Your task to perform on an android device: Open the stopwatch Image 0: 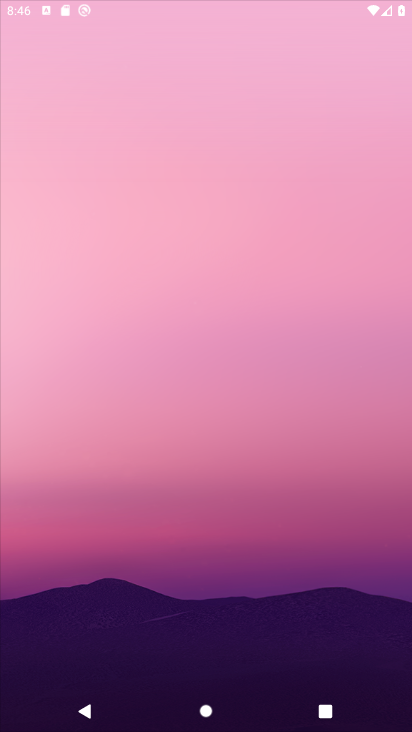
Step 0: click (212, 32)
Your task to perform on an android device: Open the stopwatch Image 1: 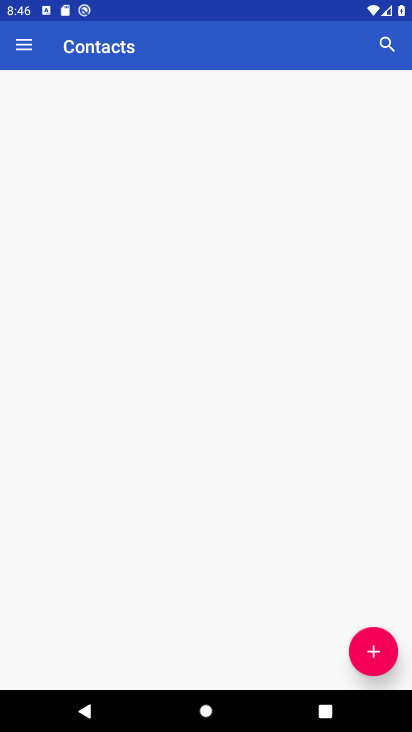
Step 1: press home button
Your task to perform on an android device: Open the stopwatch Image 2: 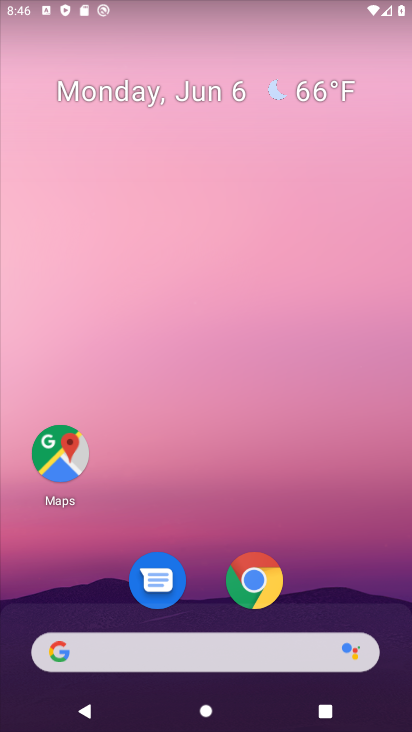
Step 2: drag from (337, 468) to (340, 2)
Your task to perform on an android device: Open the stopwatch Image 3: 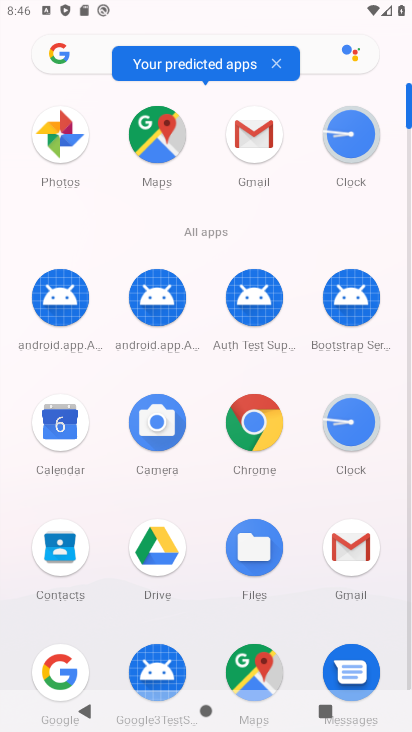
Step 3: click (349, 424)
Your task to perform on an android device: Open the stopwatch Image 4: 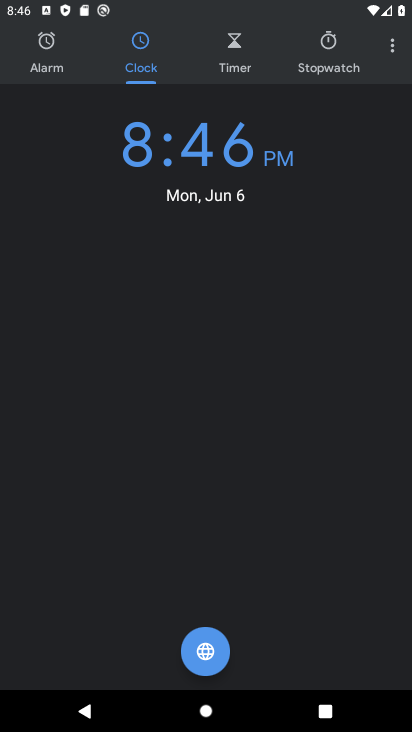
Step 4: click (319, 57)
Your task to perform on an android device: Open the stopwatch Image 5: 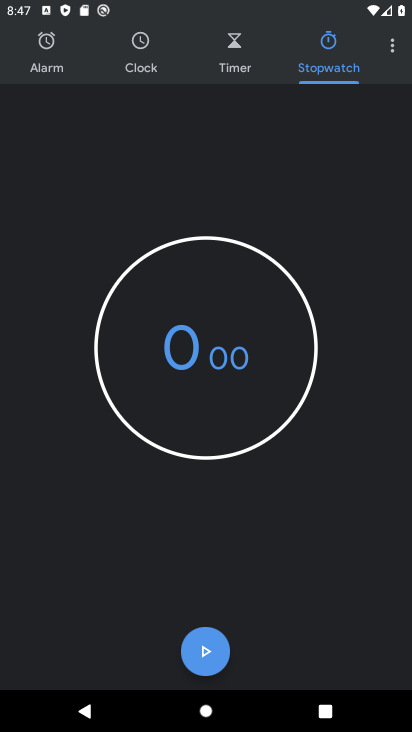
Step 5: task complete